Your task to perform on an android device: Open wifi settings Image 0: 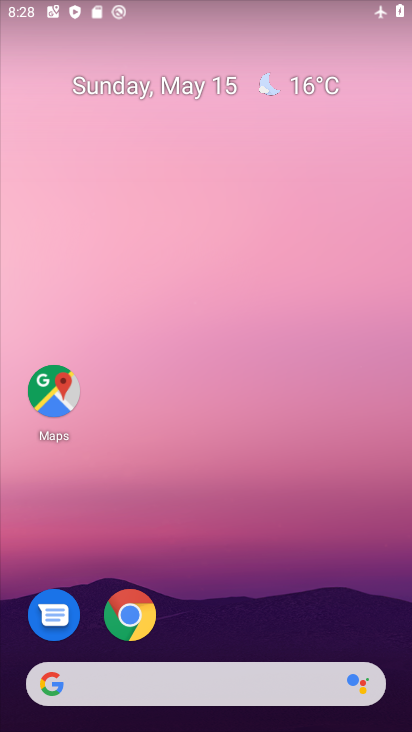
Step 0: drag from (250, 7) to (213, 495)
Your task to perform on an android device: Open wifi settings Image 1: 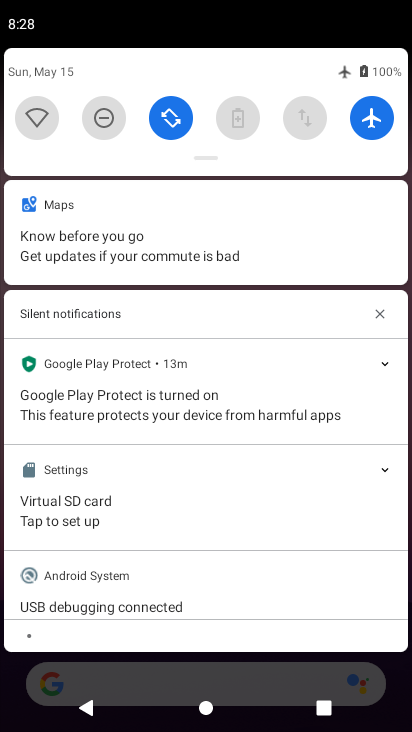
Step 1: click (32, 105)
Your task to perform on an android device: Open wifi settings Image 2: 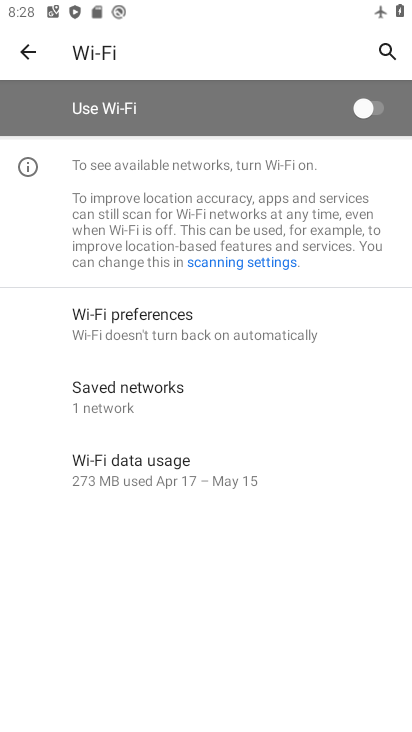
Step 2: task complete